Your task to perform on an android device: toggle pop-ups in chrome Image 0: 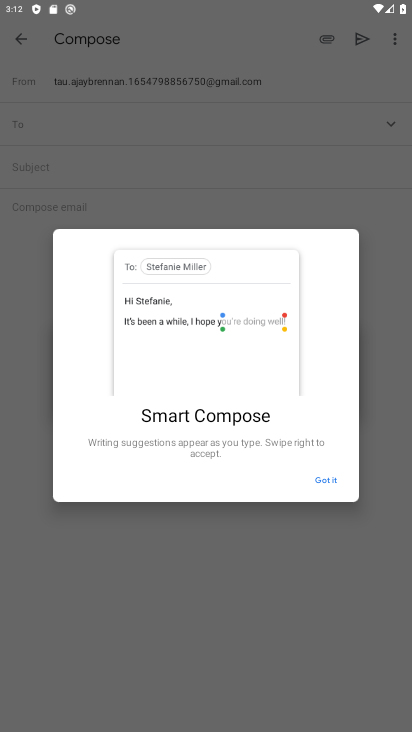
Step 0: press home button
Your task to perform on an android device: toggle pop-ups in chrome Image 1: 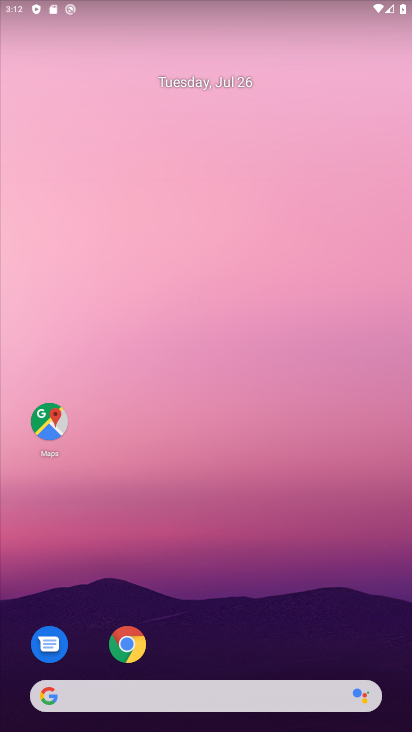
Step 1: drag from (238, 628) to (226, 175)
Your task to perform on an android device: toggle pop-ups in chrome Image 2: 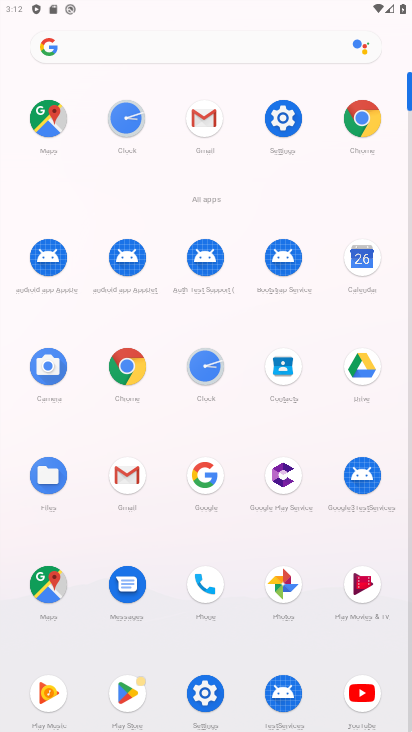
Step 2: click (125, 365)
Your task to perform on an android device: toggle pop-ups in chrome Image 3: 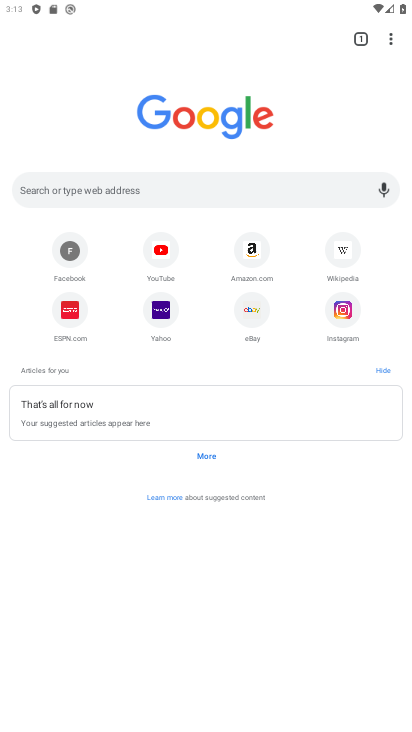
Step 3: click (400, 33)
Your task to perform on an android device: toggle pop-ups in chrome Image 4: 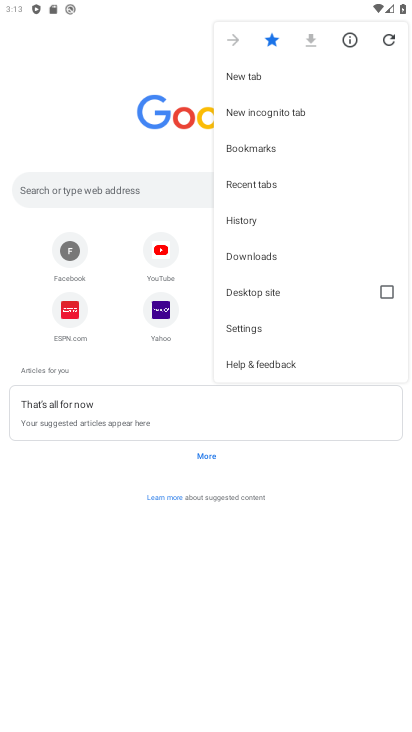
Step 4: click (261, 328)
Your task to perform on an android device: toggle pop-ups in chrome Image 5: 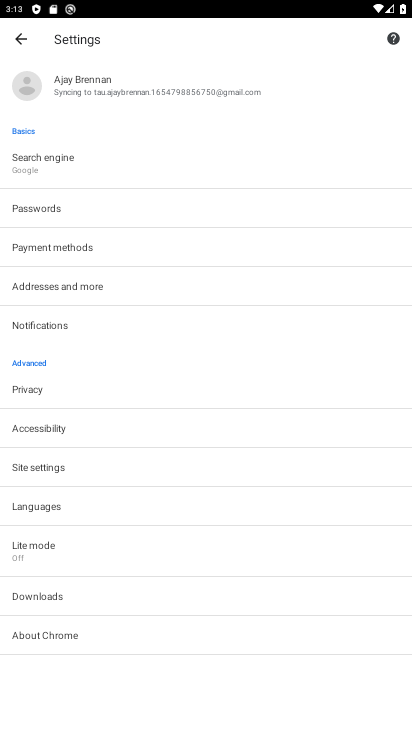
Step 5: click (80, 461)
Your task to perform on an android device: toggle pop-ups in chrome Image 6: 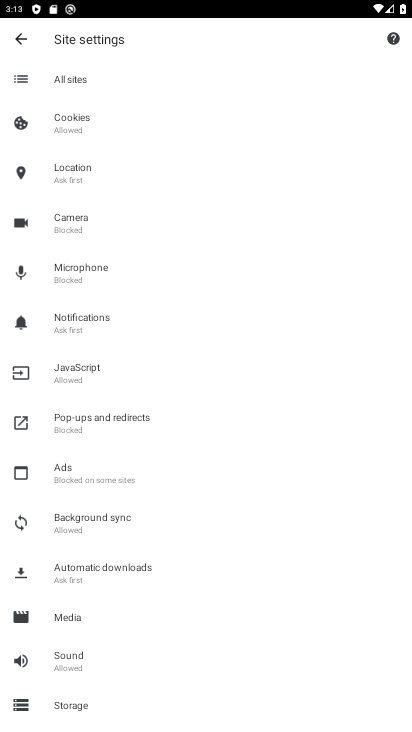
Step 6: click (104, 419)
Your task to perform on an android device: toggle pop-ups in chrome Image 7: 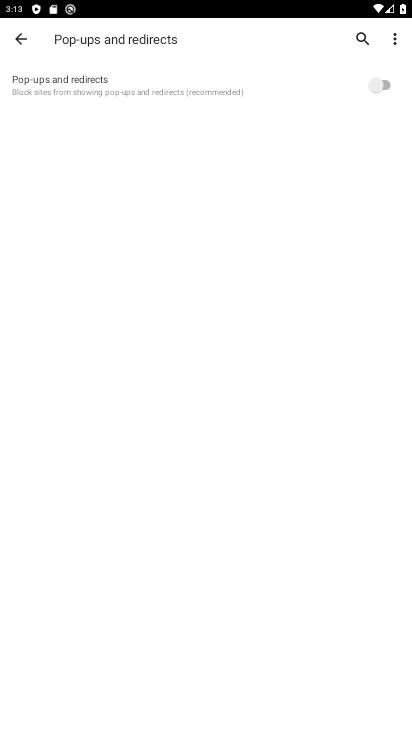
Step 7: click (375, 90)
Your task to perform on an android device: toggle pop-ups in chrome Image 8: 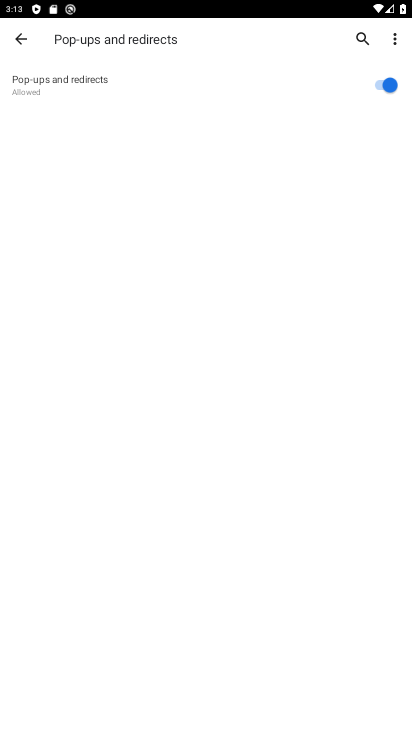
Step 8: task complete